Your task to perform on an android device: empty trash in the gmail app Image 0: 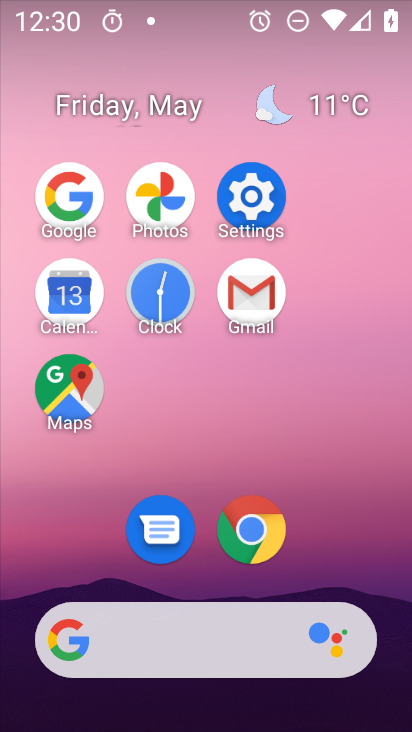
Step 0: click (259, 298)
Your task to perform on an android device: empty trash in the gmail app Image 1: 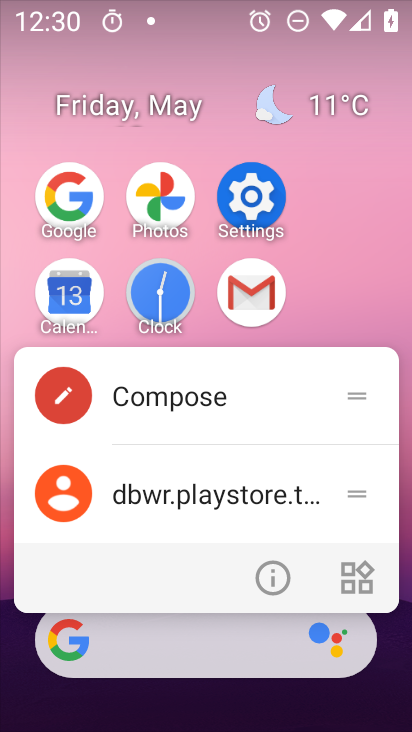
Step 1: click (253, 304)
Your task to perform on an android device: empty trash in the gmail app Image 2: 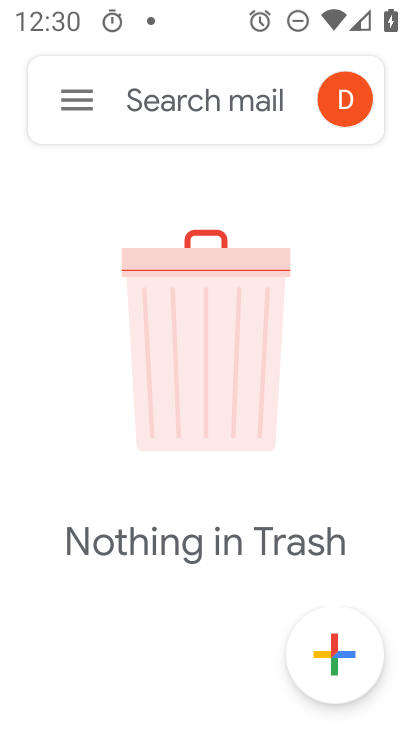
Step 2: task complete